Your task to perform on an android device: Open the stopwatch Image 0: 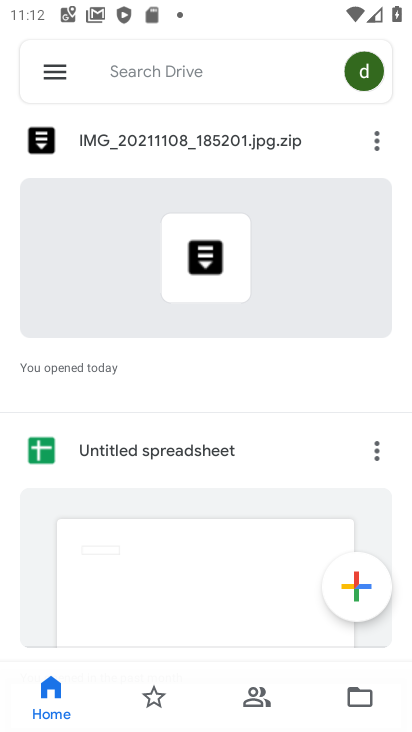
Step 0: press home button
Your task to perform on an android device: Open the stopwatch Image 1: 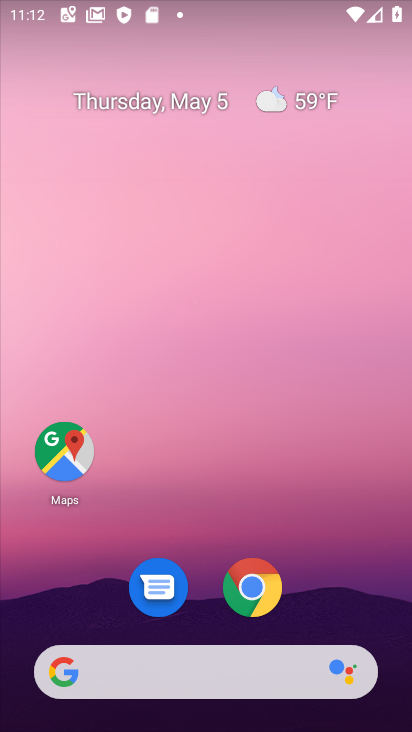
Step 1: drag from (62, 647) to (201, 70)
Your task to perform on an android device: Open the stopwatch Image 2: 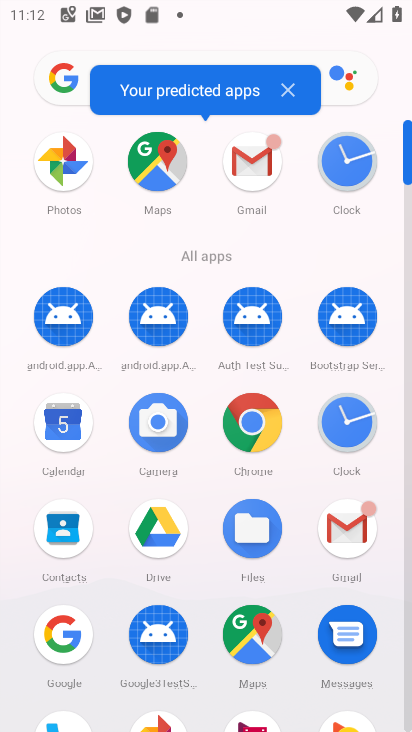
Step 2: click (354, 436)
Your task to perform on an android device: Open the stopwatch Image 3: 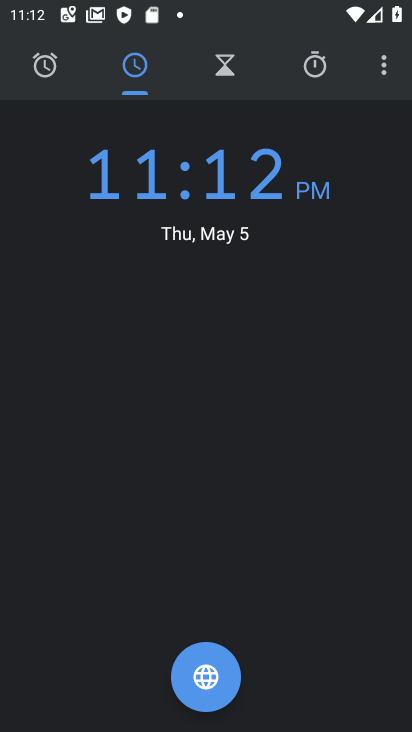
Step 3: click (307, 71)
Your task to perform on an android device: Open the stopwatch Image 4: 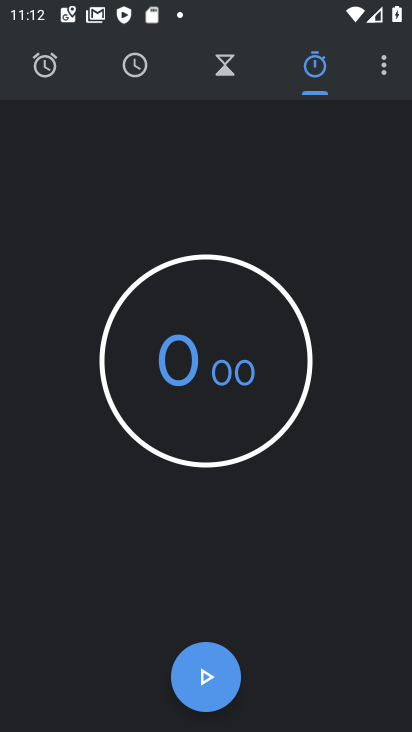
Step 4: task complete